Your task to perform on an android device: open chrome and create a bookmark for the current page Image 0: 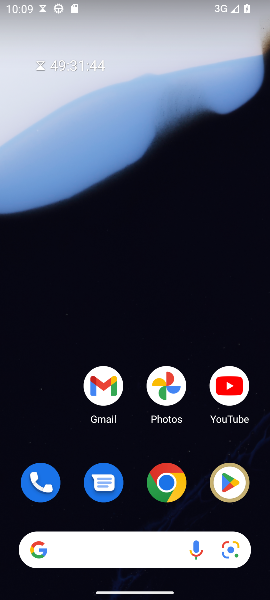
Step 0: drag from (75, 426) to (0, 289)
Your task to perform on an android device: open chrome and create a bookmark for the current page Image 1: 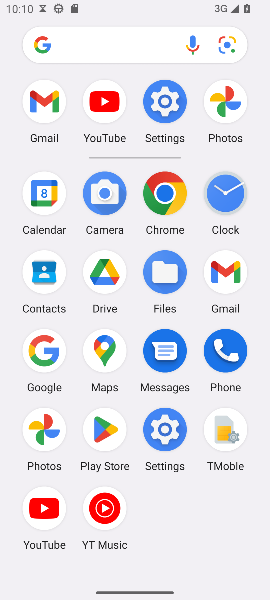
Step 1: click (172, 192)
Your task to perform on an android device: open chrome and create a bookmark for the current page Image 2: 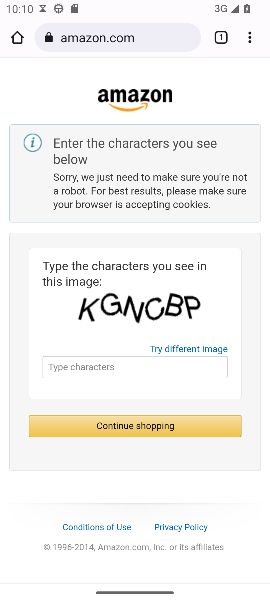
Step 2: task complete